Your task to perform on an android device: toggle notification dots Image 0: 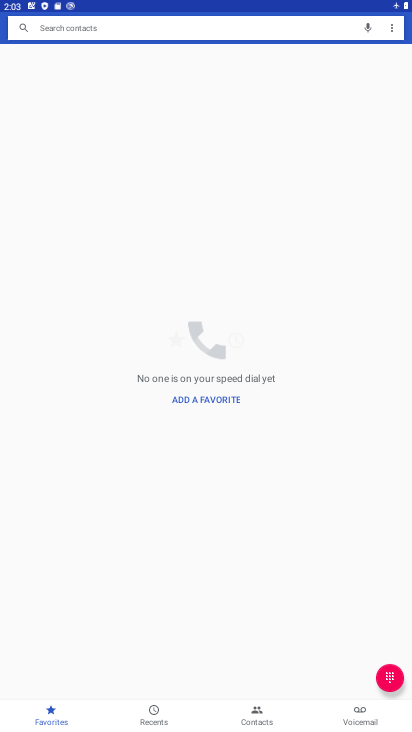
Step 0: drag from (350, 3) to (410, 598)
Your task to perform on an android device: toggle notification dots Image 1: 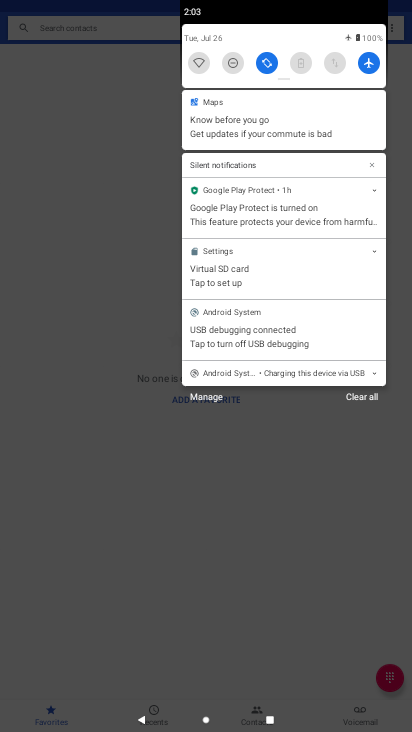
Step 1: press home button
Your task to perform on an android device: toggle notification dots Image 2: 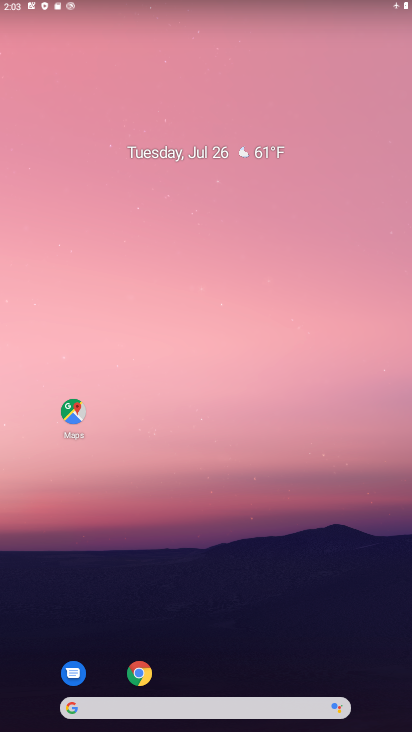
Step 2: drag from (202, 650) to (279, 119)
Your task to perform on an android device: toggle notification dots Image 3: 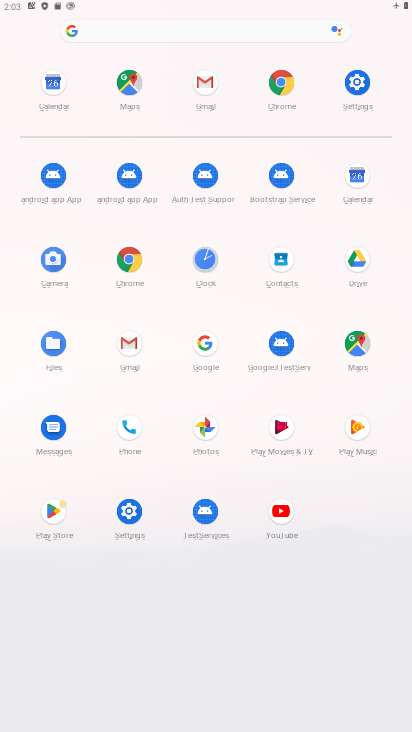
Step 3: click (363, 78)
Your task to perform on an android device: toggle notification dots Image 4: 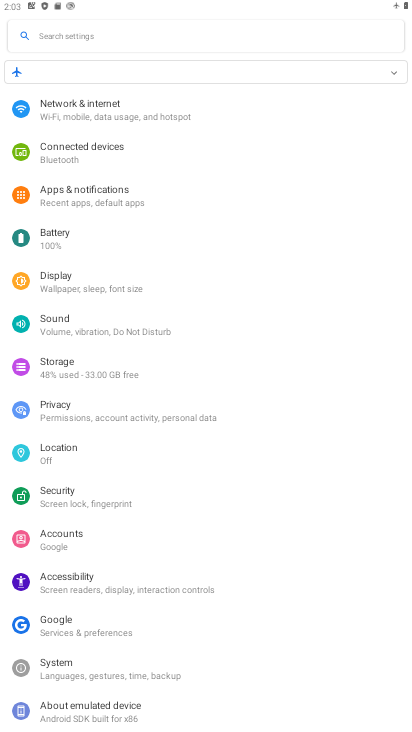
Step 4: click (124, 203)
Your task to perform on an android device: toggle notification dots Image 5: 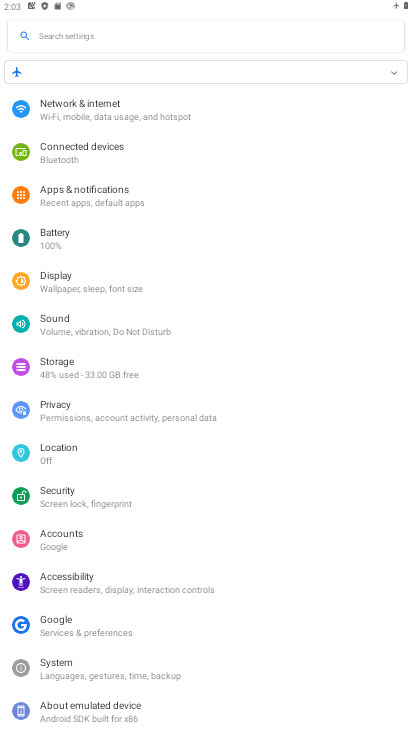
Step 5: click (124, 203)
Your task to perform on an android device: toggle notification dots Image 6: 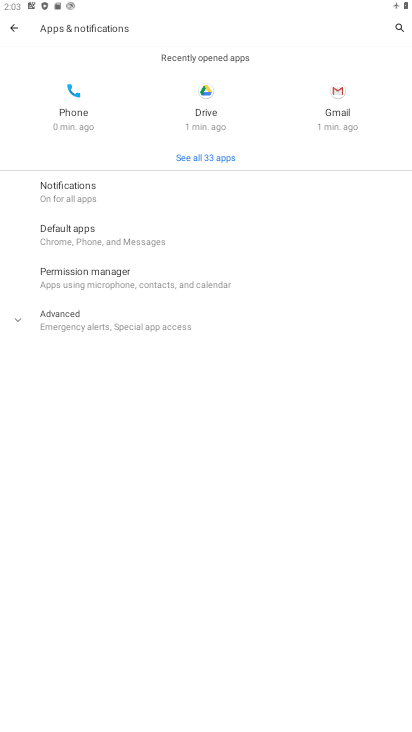
Step 6: click (83, 189)
Your task to perform on an android device: toggle notification dots Image 7: 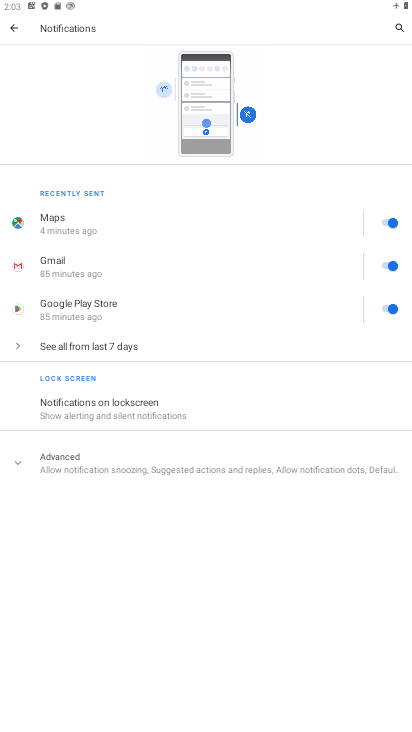
Step 7: click (96, 466)
Your task to perform on an android device: toggle notification dots Image 8: 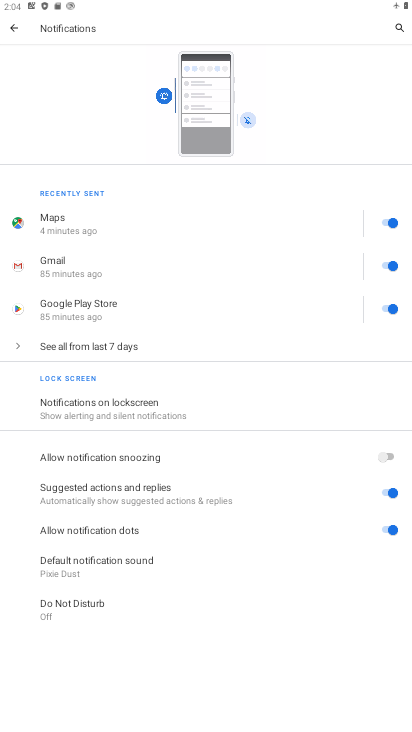
Step 8: drag from (220, 453) to (279, 255)
Your task to perform on an android device: toggle notification dots Image 9: 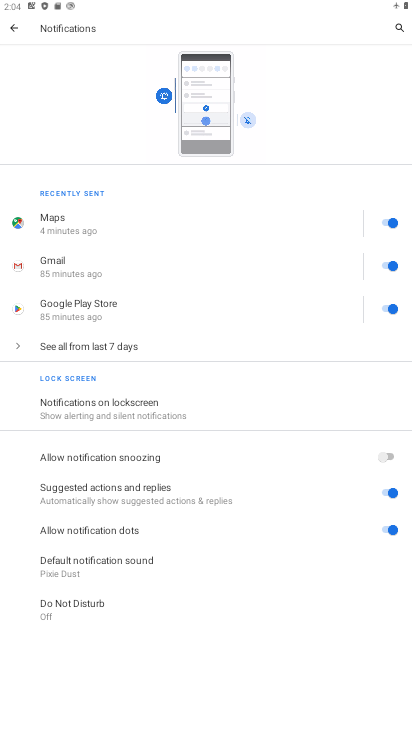
Step 9: click (386, 528)
Your task to perform on an android device: toggle notification dots Image 10: 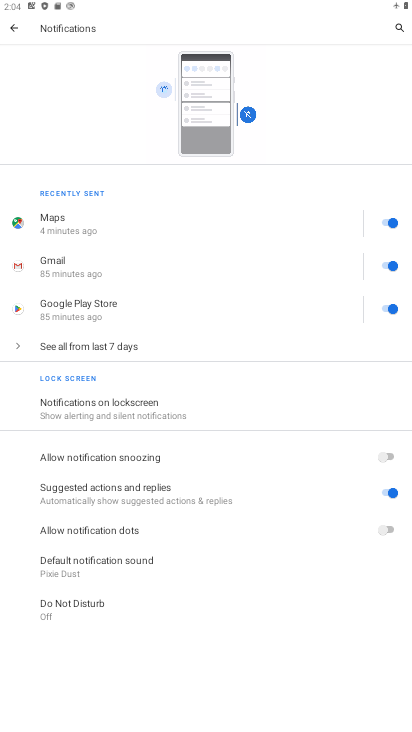
Step 10: task complete